Your task to perform on an android device: add a label to a message in the gmail app Image 0: 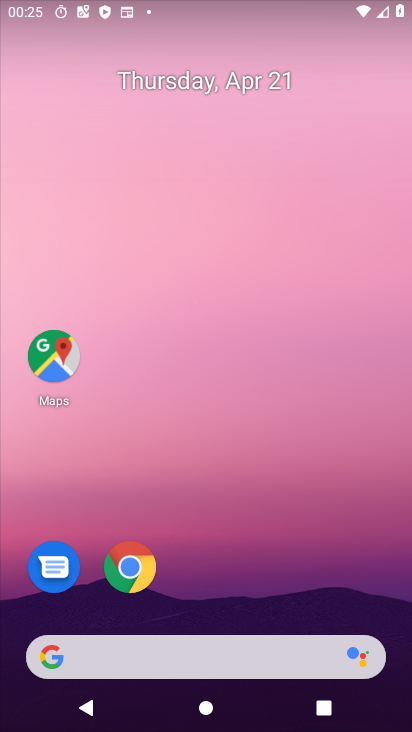
Step 0: drag from (262, 549) to (283, 190)
Your task to perform on an android device: add a label to a message in the gmail app Image 1: 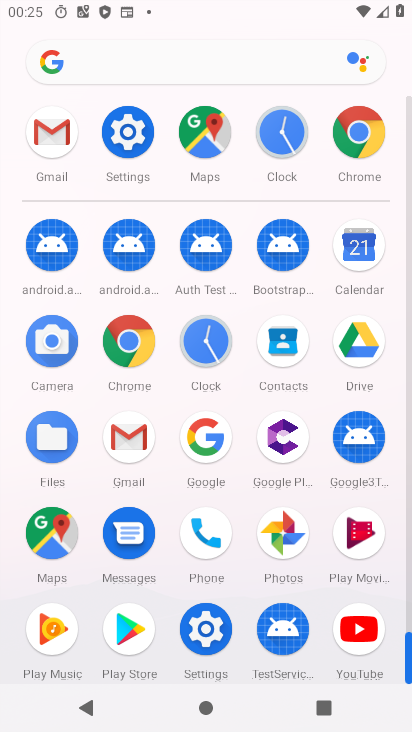
Step 1: click (138, 433)
Your task to perform on an android device: add a label to a message in the gmail app Image 2: 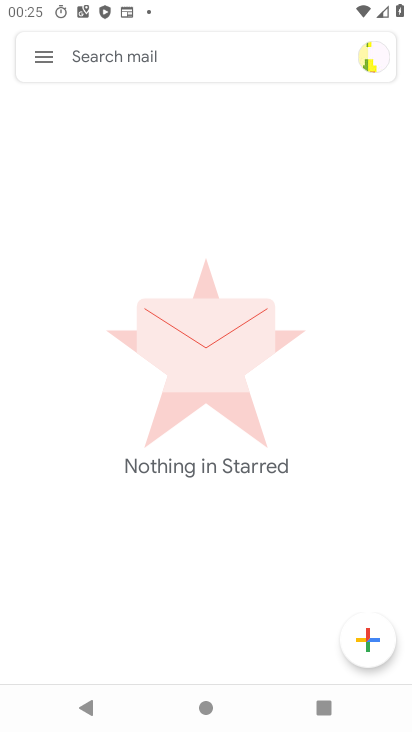
Step 2: click (49, 50)
Your task to perform on an android device: add a label to a message in the gmail app Image 3: 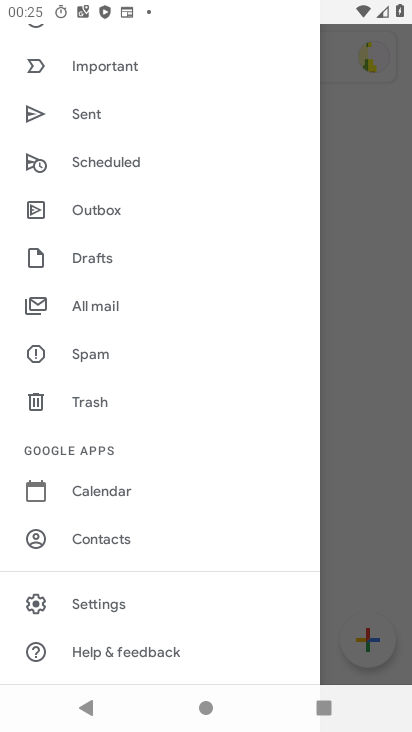
Step 3: click (102, 307)
Your task to perform on an android device: add a label to a message in the gmail app Image 4: 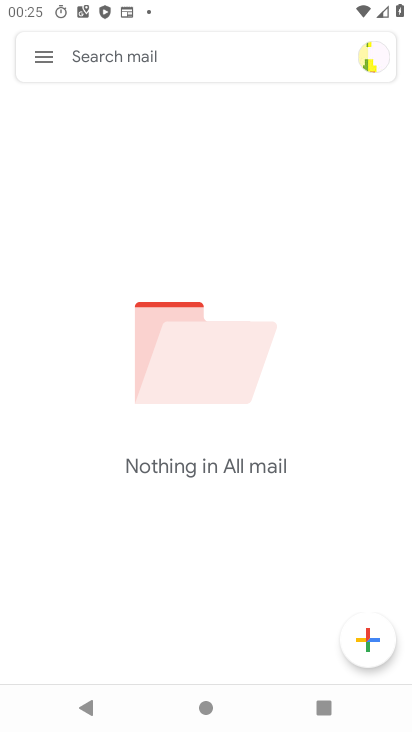
Step 4: task complete